Your task to perform on an android device: manage bookmarks in the chrome app Image 0: 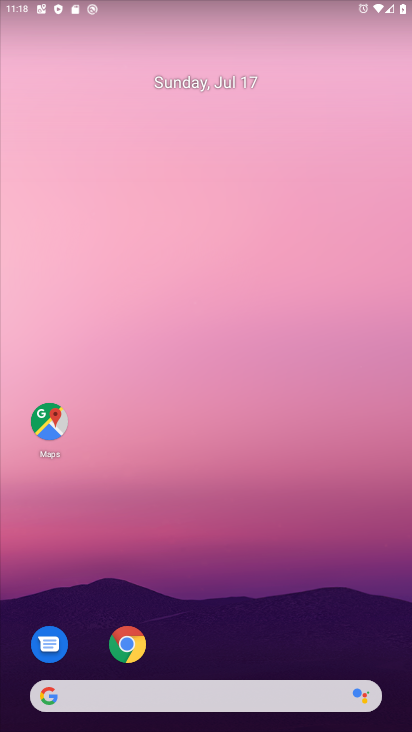
Step 0: drag from (321, 616) to (359, 136)
Your task to perform on an android device: manage bookmarks in the chrome app Image 1: 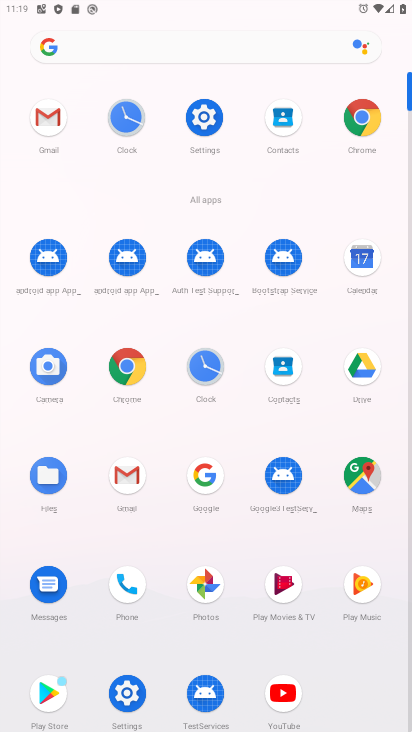
Step 1: click (361, 120)
Your task to perform on an android device: manage bookmarks in the chrome app Image 2: 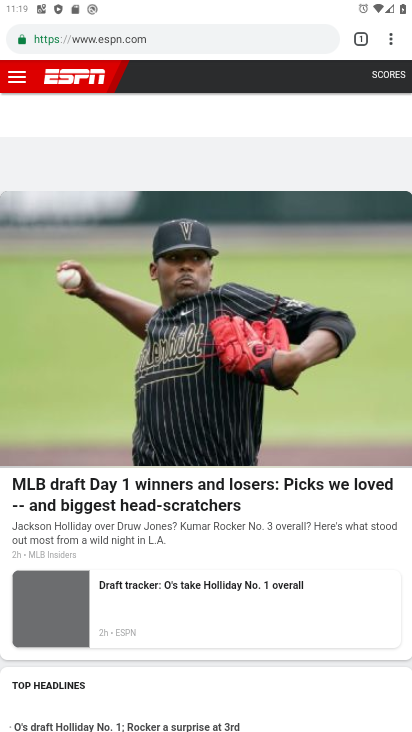
Step 2: drag from (397, 35) to (238, 150)
Your task to perform on an android device: manage bookmarks in the chrome app Image 3: 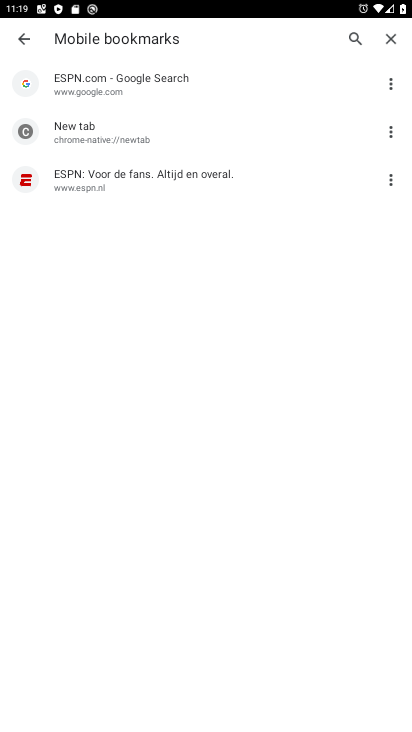
Step 3: click (392, 173)
Your task to perform on an android device: manage bookmarks in the chrome app Image 4: 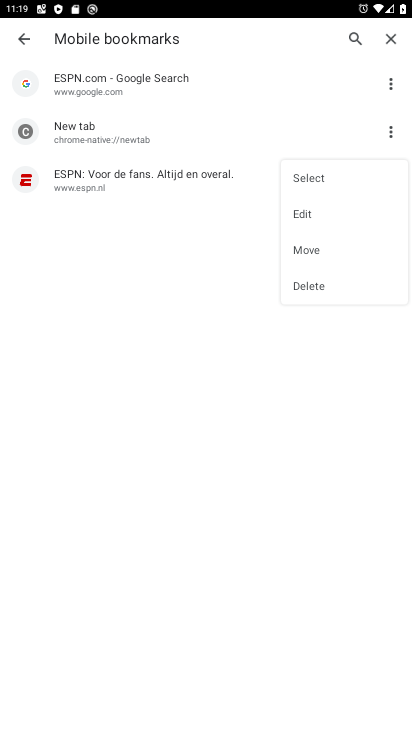
Step 4: click (324, 294)
Your task to perform on an android device: manage bookmarks in the chrome app Image 5: 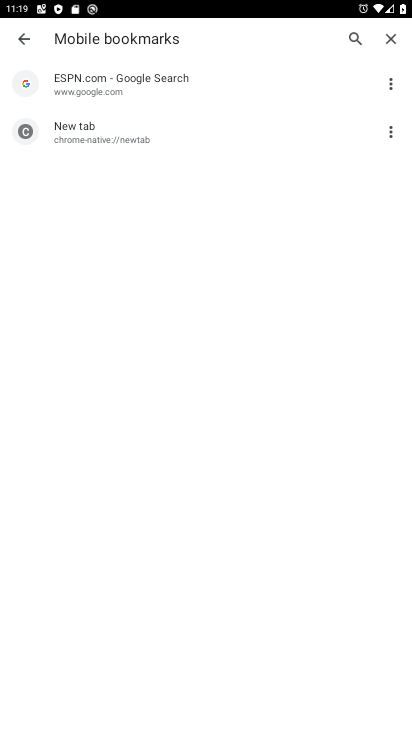
Step 5: task complete